Your task to perform on an android device: Open privacy settings Image 0: 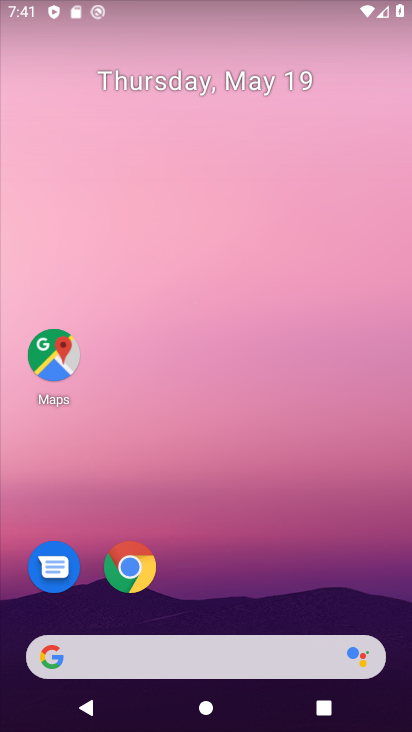
Step 0: drag from (196, 613) to (329, 8)
Your task to perform on an android device: Open privacy settings Image 1: 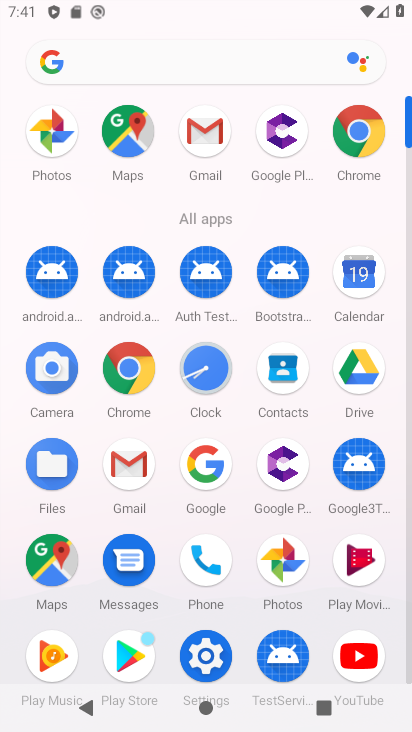
Step 1: click (237, 204)
Your task to perform on an android device: Open privacy settings Image 2: 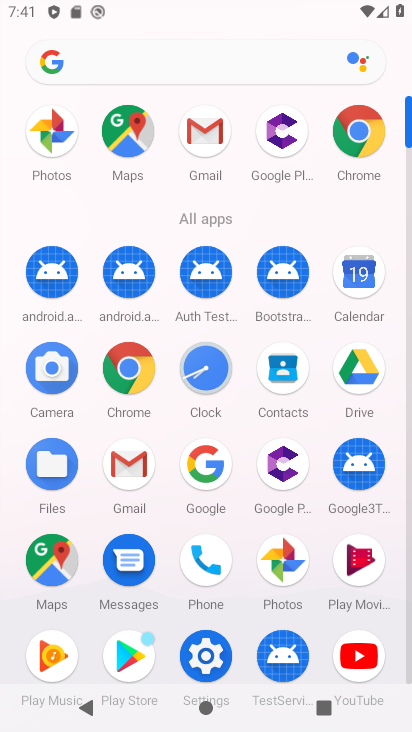
Step 2: click (205, 655)
Your task to perform on an android device: Open privacy settings Image 3: 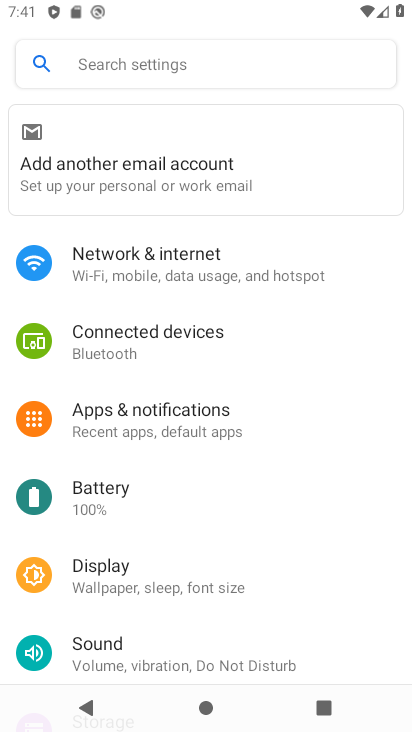
Step 3: drag from (130, 620) to (118, 130)
Your task to perform on an android device: Open privacy settings Image 4: 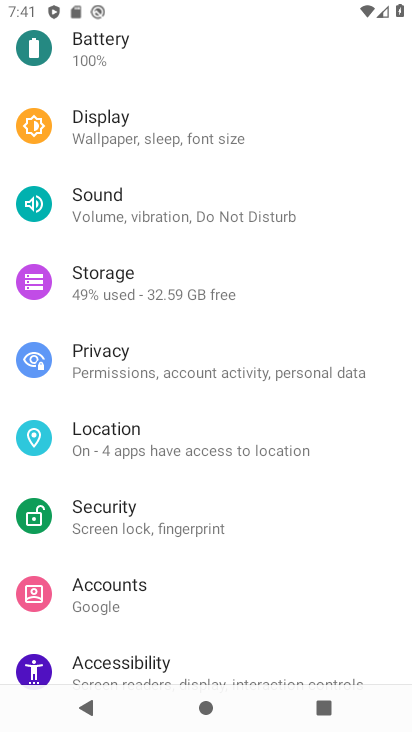
Step 4: click (100, 365)
Your task to perform on an android device: Open privacy settings Image 5: 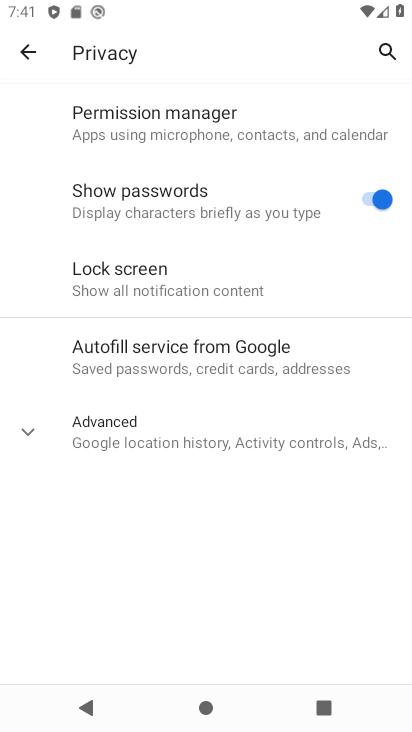
Step 5: task complete